Your task to perform on an android device: Is it going to rain today? Image 0: 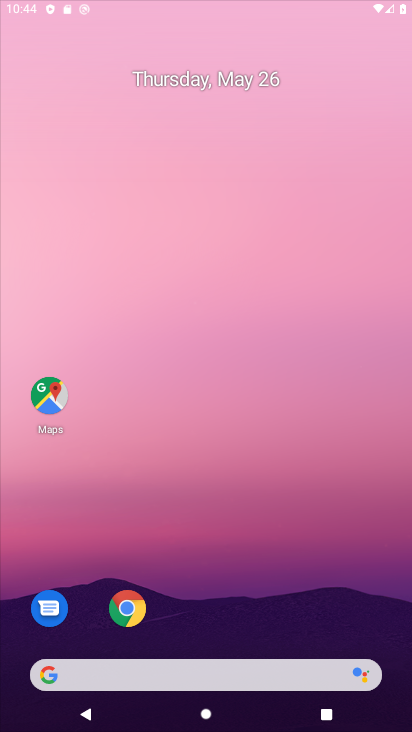
Step 0: press home button
Your task to perform on an android device: Is it going to rain today? Image 1: 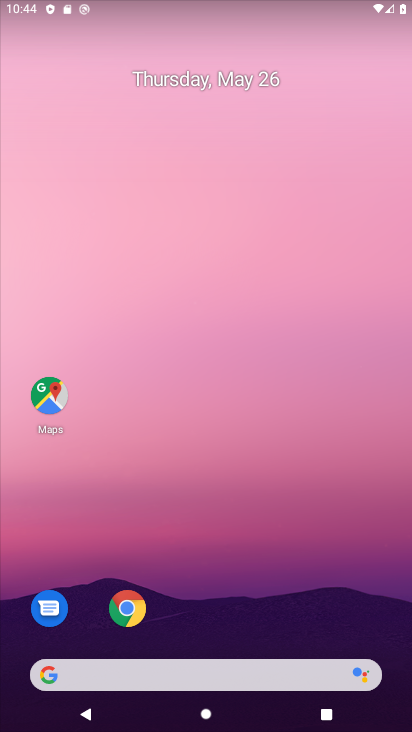
Step 1: drag from (295, 547) to (320, 0)
Your task to perform on an android device: Is it going to rain today? Image 2: 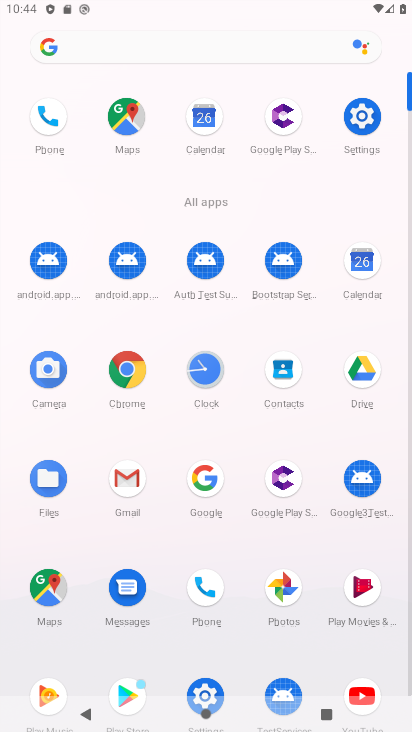
Step 2: click (135, 363)
Your task to perform on an android device: Is it going to rain today? Image 3: 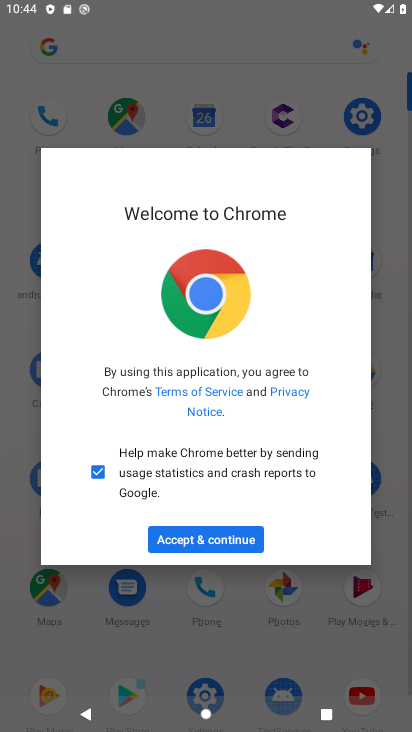
Step 3: click (180, 538)
Your task to perform on an android device: Is it going to rain today? Image 4: 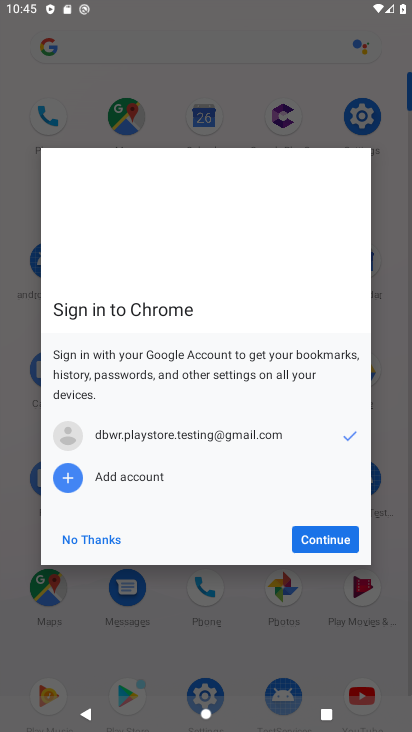
Step 4: click (319, 535)
Your task to perform on an android device: Is it going to rain today? Image 5: 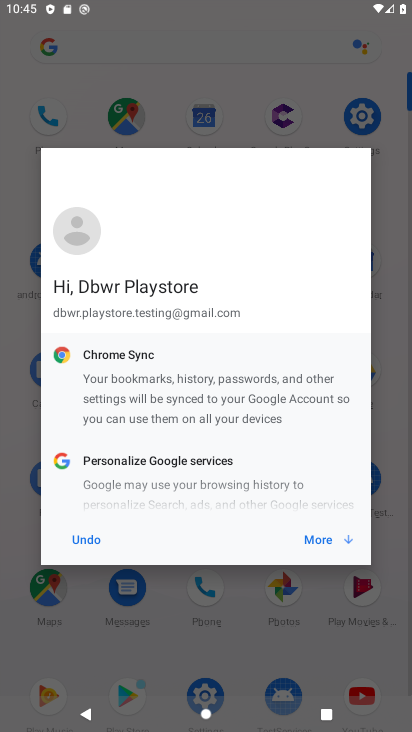
Step 5: click (308, 529)
Your task to perform on an android device: Is it going to rain today? Image 6: 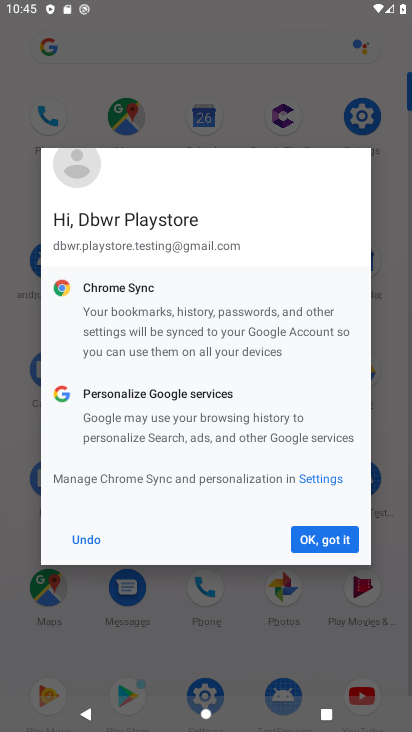
Step 6: click (316, 534)
Your task to perform on an android device: Is it going to rain today? Image 7: 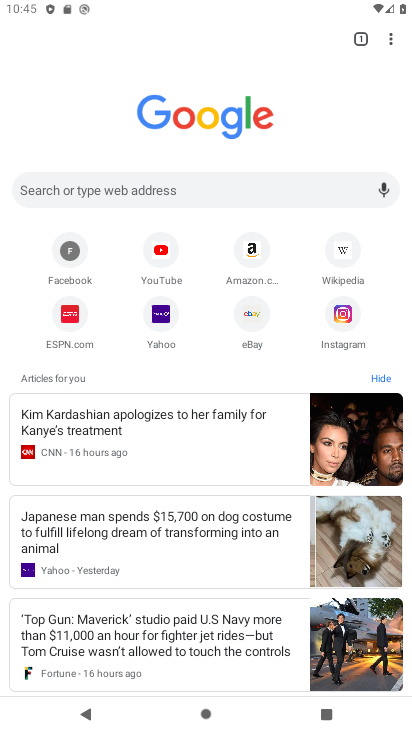
Step 7: click (241, 196)
Your task to perform on an android device: Is it going to rain today? Image 8: 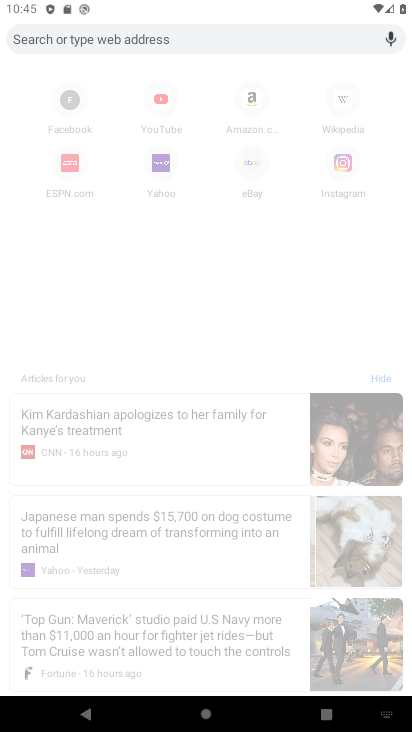
Step 8: type "weather"
Your task to perform on an android device: Is it going to rain today? Image 9: 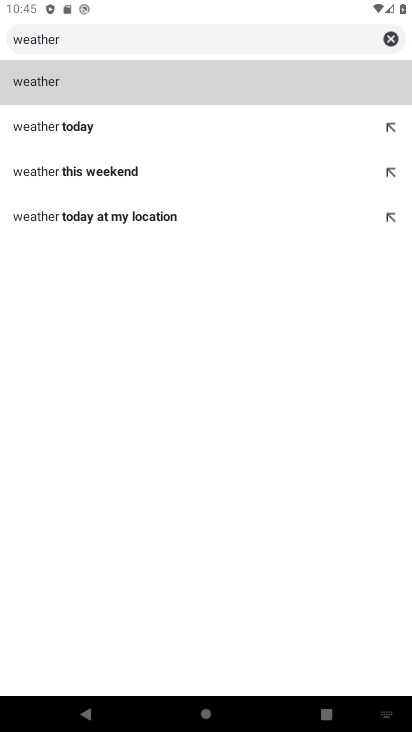
Step 9: click (46, 86)
Your task to perform on an android device: Is it going to rain today? Image 10: 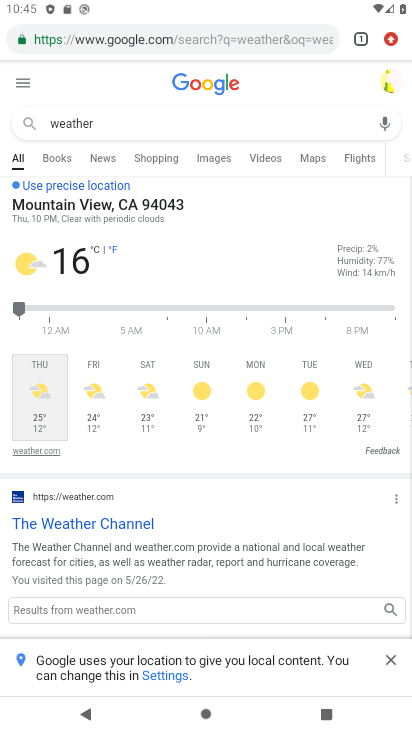
Step 10: task complete